Your task to perform on an android device: install app "Grab" Image 0: 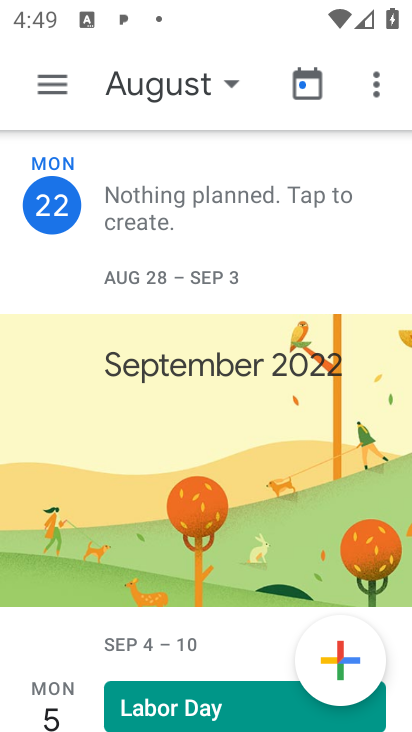
Step 0: press home button
Your task to perform on an android device: install app "Grab" Image 1: 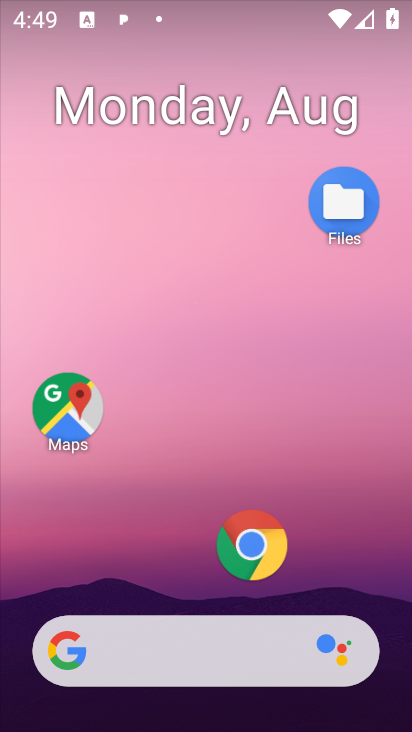
Step 1: drag from (129, 572) to (194, 77)
Your task to perform on an android device: install app "Grab" Image 2: 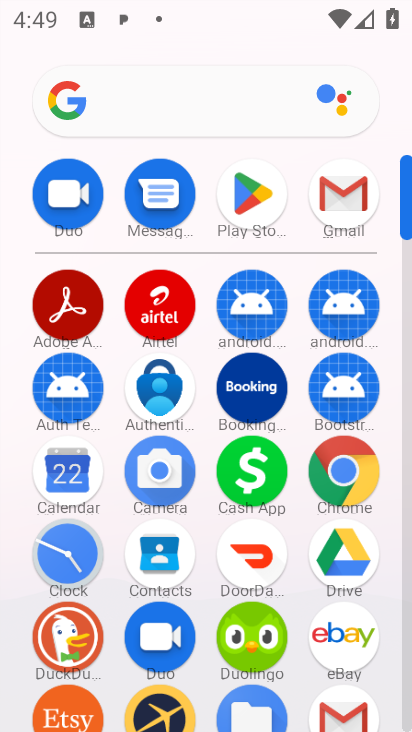
Step 2: click (249, 201)
Your task to perform on an android device: install app "Grab" Image 3: 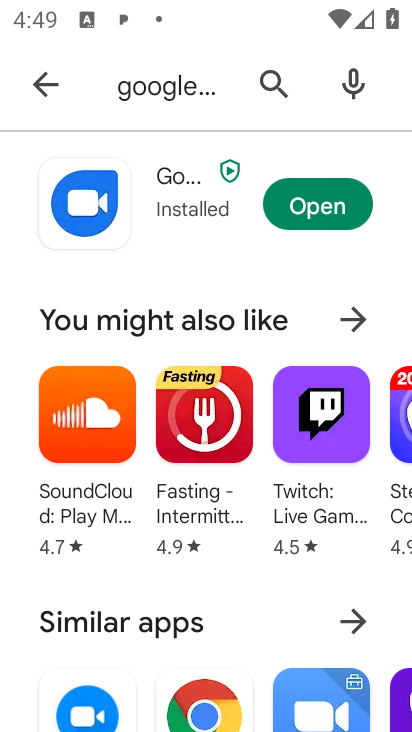
Step 3: click (283, 82)
Your task to perform on an android device: install app "Grab" Image 4: 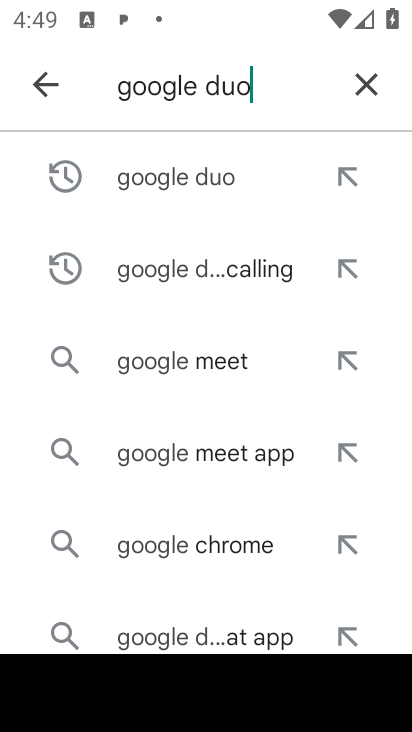
Step 4: click (356, 72)
Your task to perform on an android device: install app "Grab" Image 5: 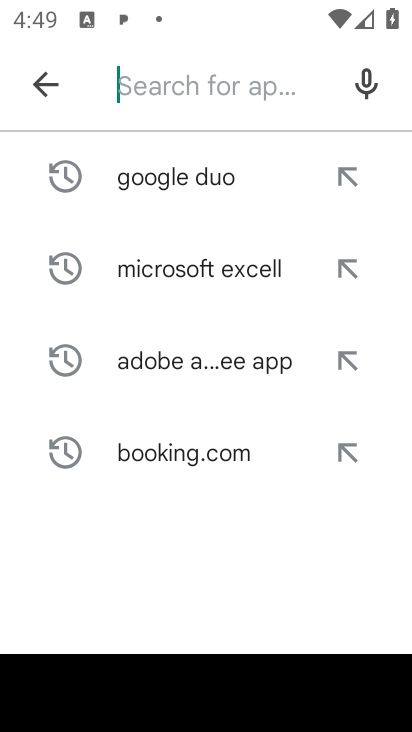
Step 5: click (193, 86)
Your task to perform on an android device: install app "Grab" Image 6: 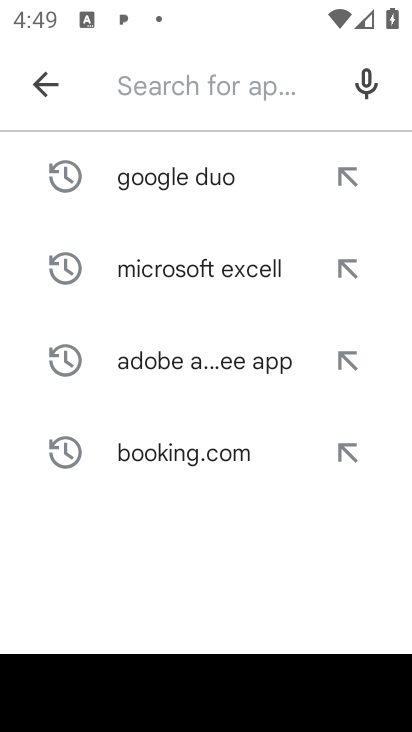
Step 6: click (142, 74)
Your task to perform on an android device: install app "Grab" Image 7: 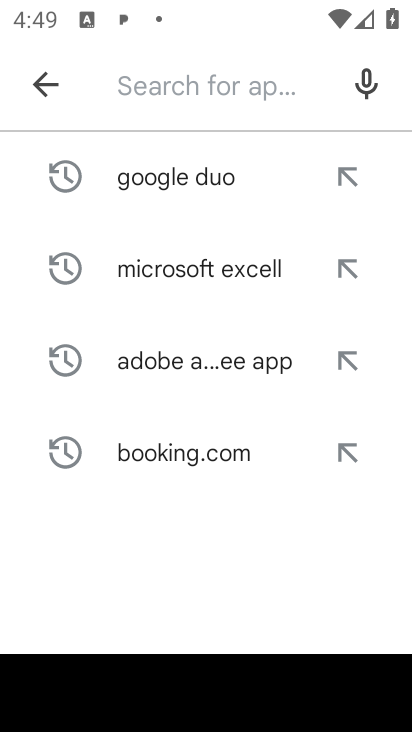
Step 7: type "grab"
Your task to perform on an android device: install app "Grab" Image 8: 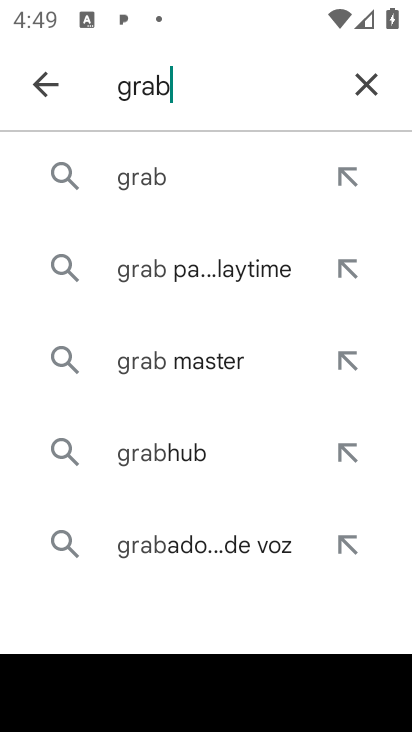
Step 8: click (190, 185)
Your task to perform on an android device: install app "Grab" Image 9: 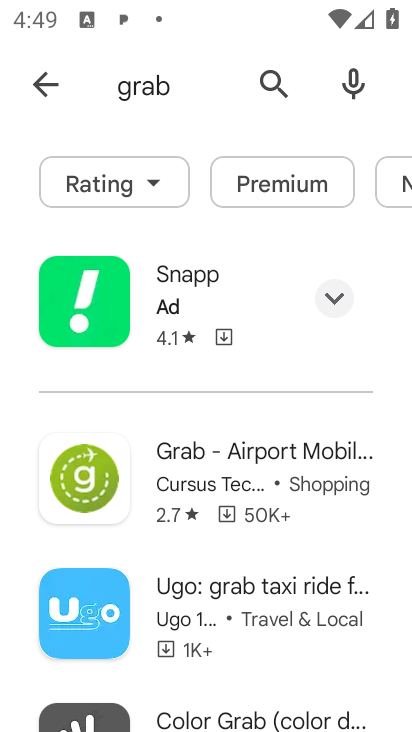
Step 9: task complete